Your task to perform on an android device: Search for "panasonic triple a" on amazon, select the first entry, and add it to the cart. Image 0: 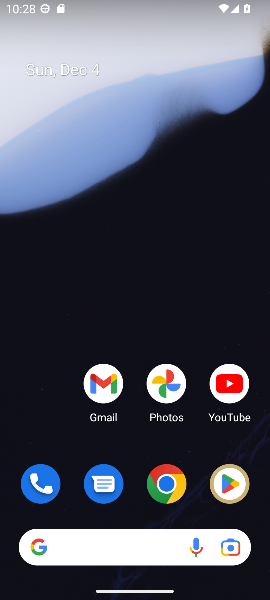
Step 0: click (160, 488)
Your task to perform on an android device: Search for "panasonic triple a" on amazon, select the first entry, and add it to the cart. Image 1: 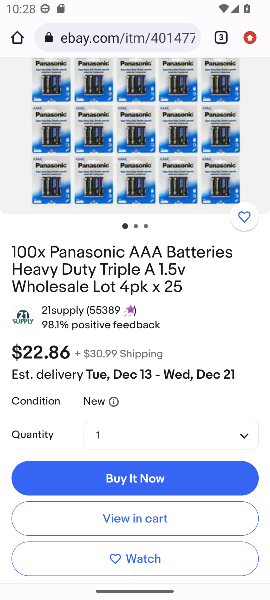
Step 1: click (121, 39)
Your task to perform on an android device: Search for "panasonic triple a" on amazon, select the first entry, and add it to the cart. Image 2: 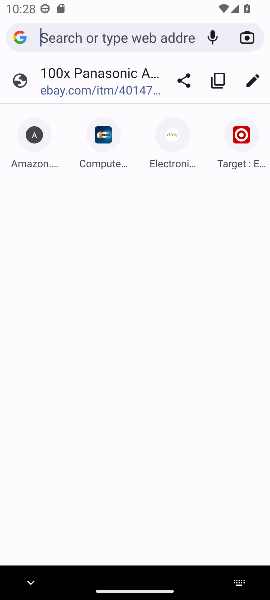
Step 2: click (27, 168)
Your task to perform on an android device: Search for "panasonic triple a" on amazon, select the first entry, and add it to the cart. Image 3: 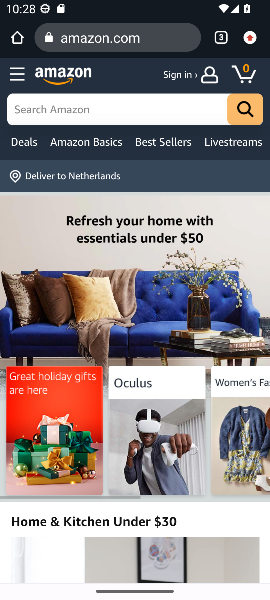
Step 3: click (116, 103)
Your task to perform on an android device: Search for "panasonic triple a" on amazon, select the first entry, and add it to the cart. Image 4: 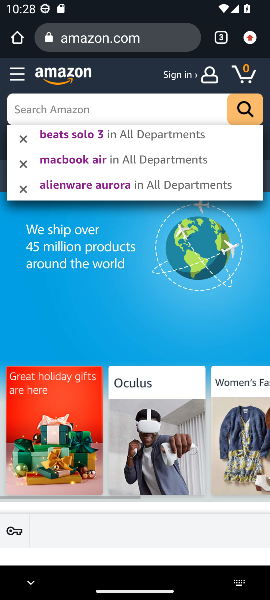
Step 4: type "panasonic triple a"
Your task to perform on an android device: Search for "panasonic triple a" on amazon, select the first entry, and add it to the cart. Image 5: 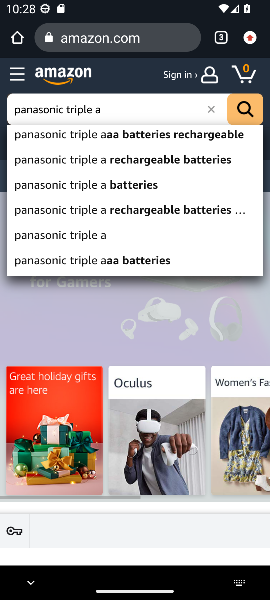
Step 5: click (48, 184)
Your task to perform on an android device: Search for "panasonic triple a" on amazon, select the first entry, and add it to the cart. Image 6: 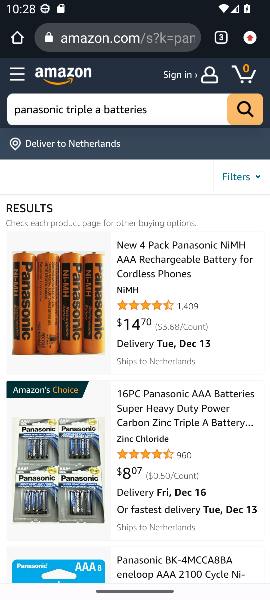
Step 6: click (168, 255)
Your task to perform on an android device: Search for "panasonic triple a" on amazon, select the first entry, and add it to the cart. Image 7: 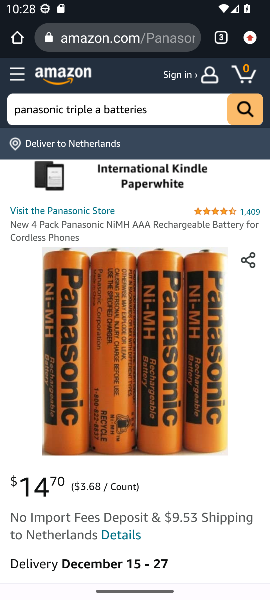
Step 7: drag from (119, 443) to (112, 170)
Your task to perform on an android device: Search for "panasonic triple a" on amazon, select the first entry, and add it to the cart. Image 8: 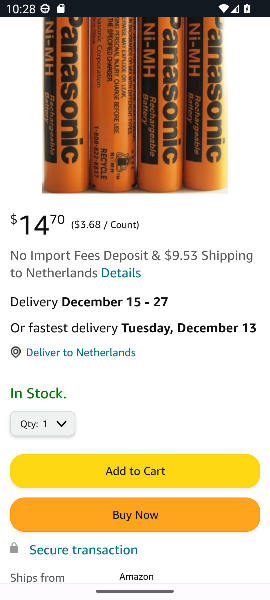
Step 8: click (114, 470)
Your task to perform on an android device: Search for "panasonic triple a" on amazon, select the first entry, and add it to the cart. Image 9: 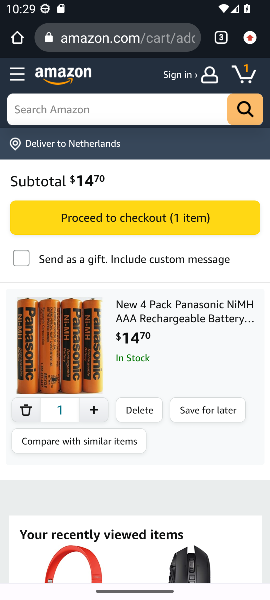
Step 9: task complete